Your task to perform on an android device: Google the capital of Panama Image 0: 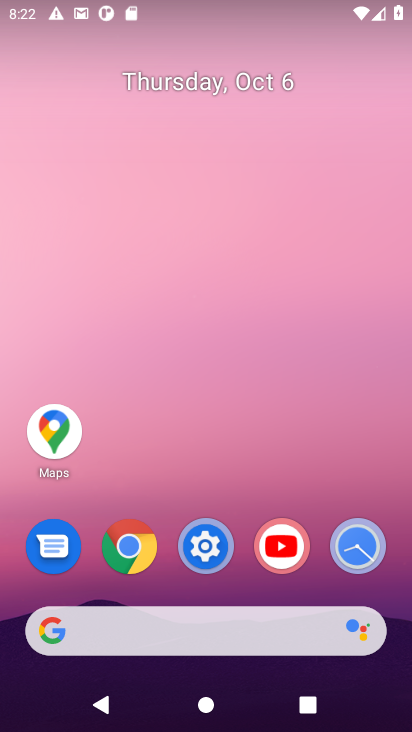
Step 0: click (130, 546)
Your task to perform on an android device: Google the capital of Panama Image 1: 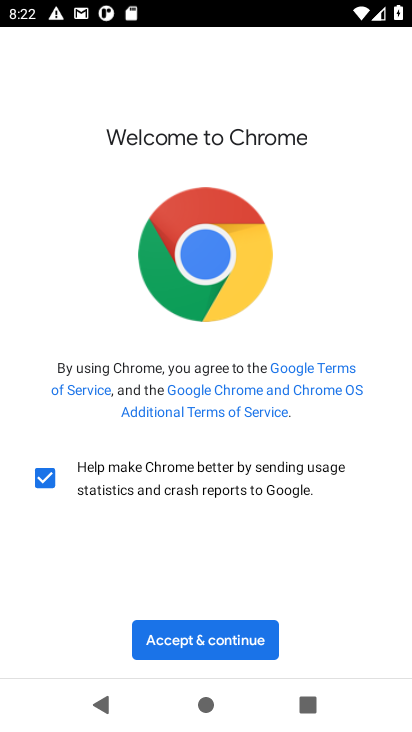
Step 1: click (193, 641)
Your task to perform on an android device: Google the capital of Panama Image 2: 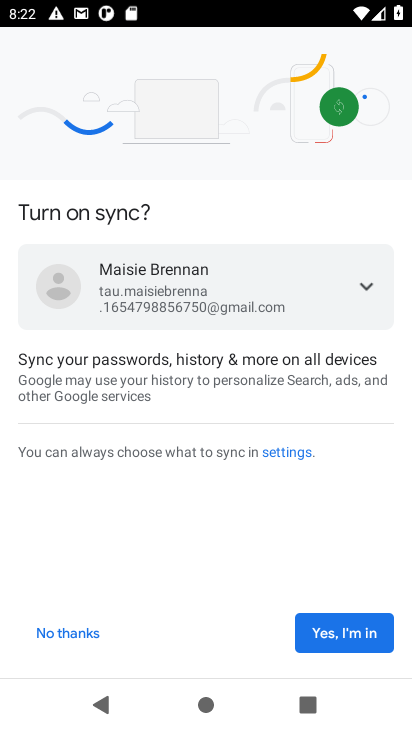
Step 2: click (69, 640)
Your task to perform on an android device: Google the capital of Panama Image 3: 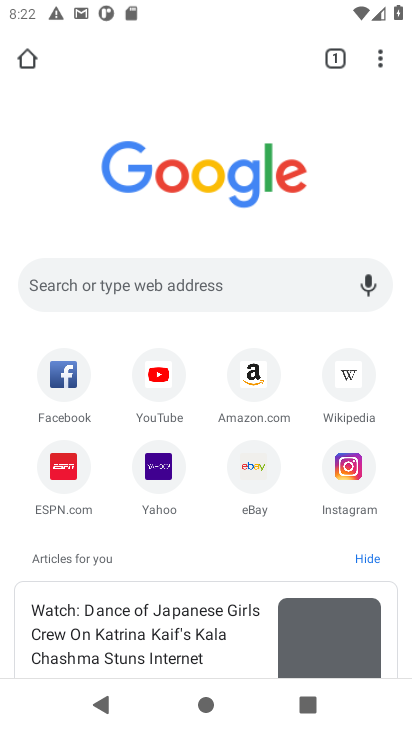
Step 3: click (144, 279)
Your task to perform on an android device: Google the capital of Panama Image 4: 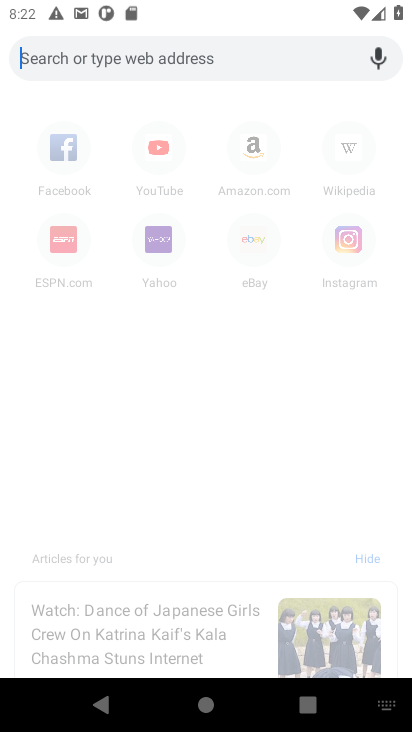
Step 4: type "capital of panama"
Your task to perform on an android device: Google the capital of Panama Image 5: 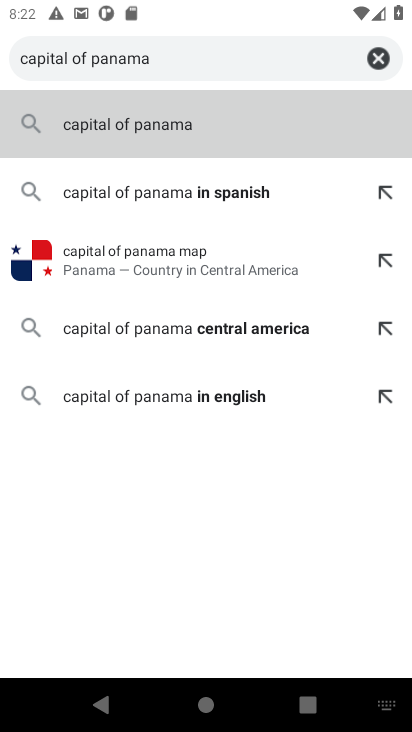
Step 5: click (99, 112)
Your task to perform on an android device: Google the capital of Panama Image 6: 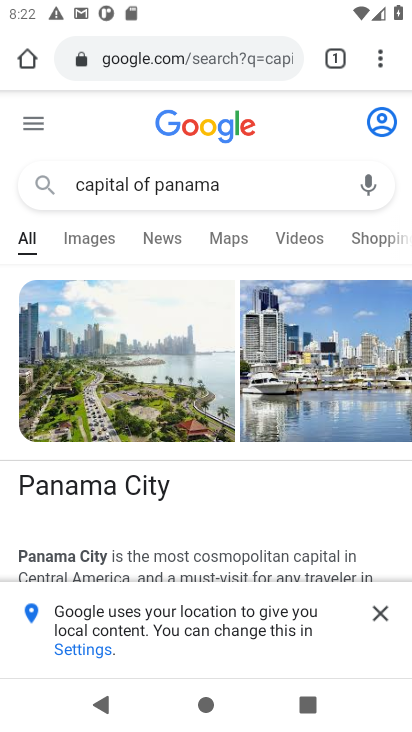
Step 6: click (378, 607)
Your task to perform on an android device: Google the capital of Panama Image 7: 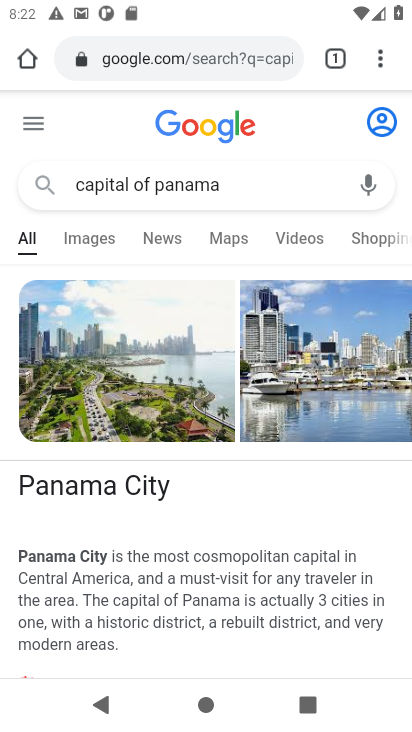
Step 7: task complete